Your task to perform on an android device: turn on improve location accuracy Image 0: 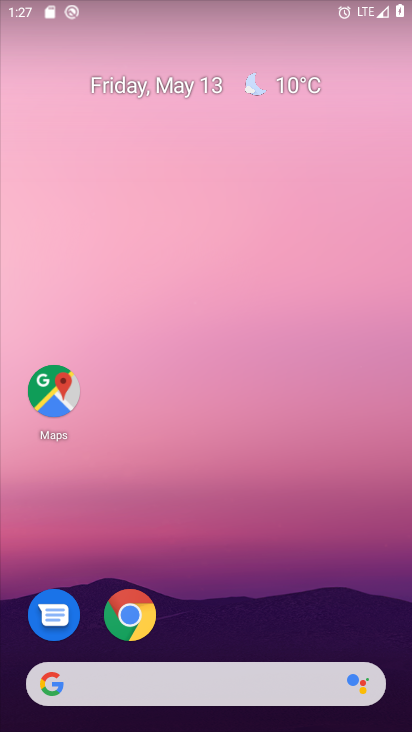
Step 0: drag from (240, 620) to (214, 51)
Your task to perform on an android device: turn on improve location accuracy Image 1: 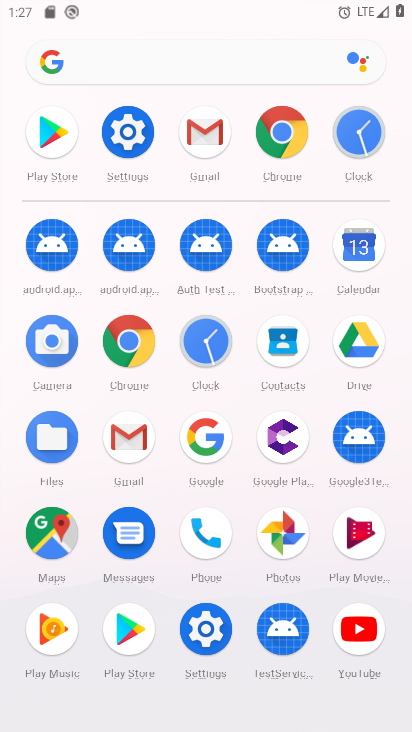
Step 1: click (133, 118)
Your task to perform on an android device: turn on improve location accuracy Image 2: 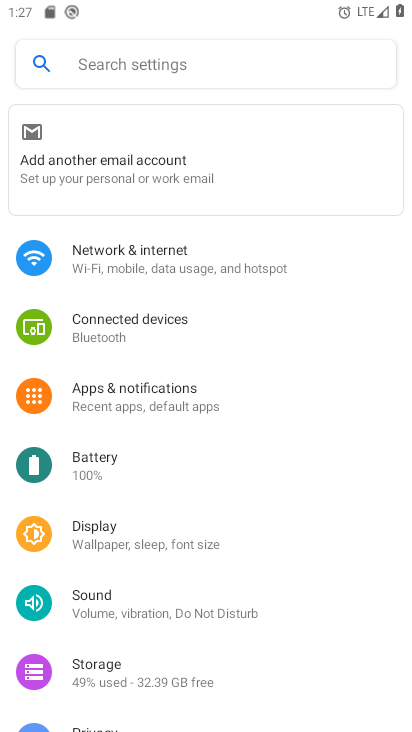
Step 2: drag from (229, 599) to (251, 72)
Your task to perform on an android device: turn on improve location accuracy Image 3: 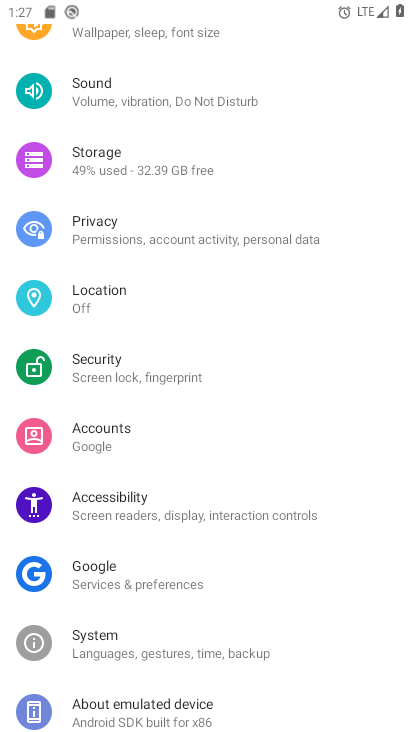
Step 3: click (109, 298)
Your task to perform on an android device: turn on improve location accuracy Image 4: 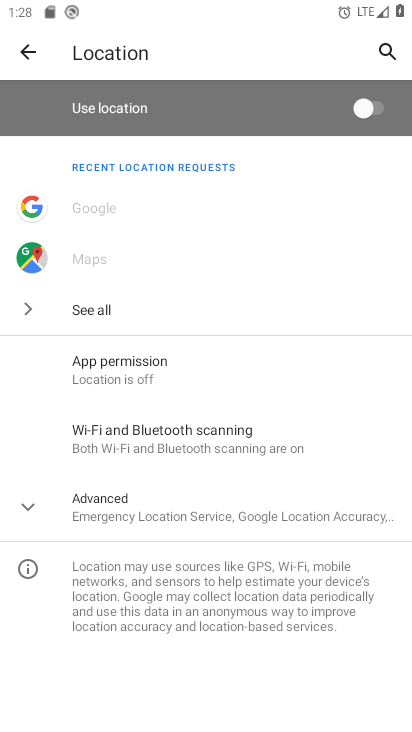
Step 4: click (26, 500)
Your task to perform on an android device: turn on improve location accuracy Image 5: 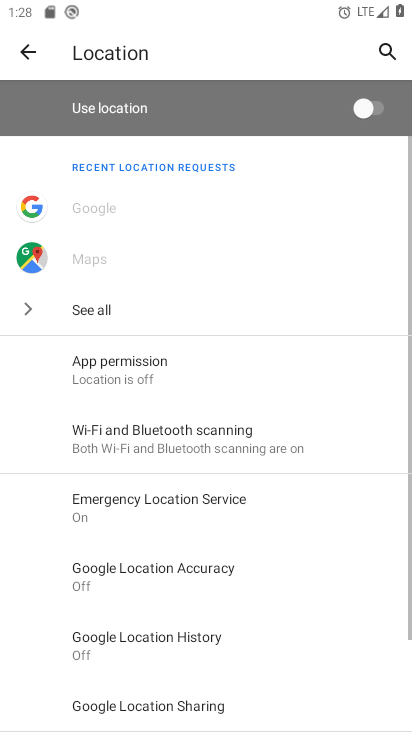
Step 5: drag from (240, 416) to (273, 149)
Your task to perform on an android device: turn on improve location accuracy Image 6: 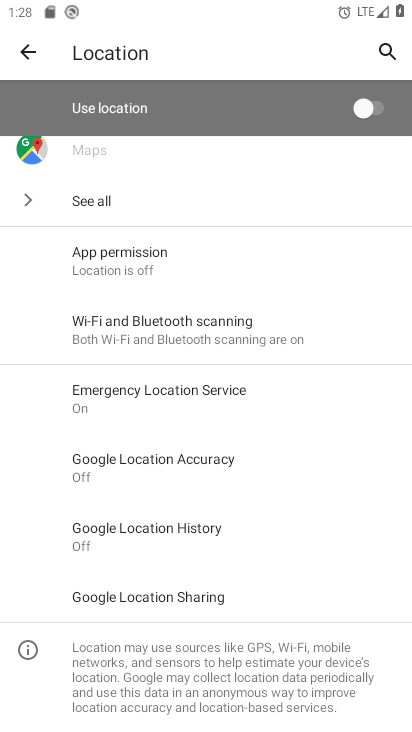
Step 6: click (175, 460)
Your task to perform on an android device: turn on improve location accuracy Image 7: 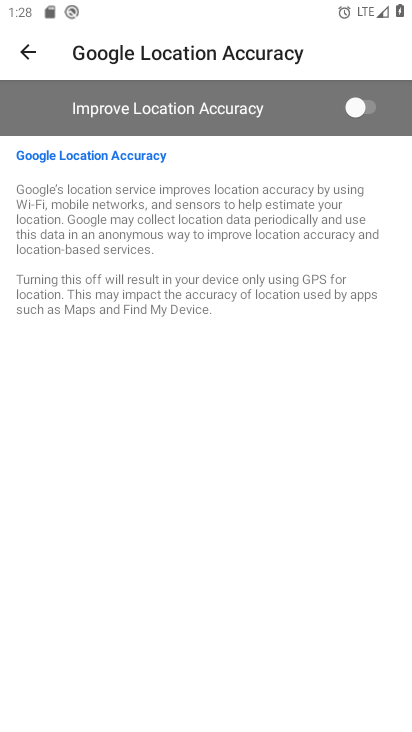
Step 7: click (372, 106)
Your task to perform on an android device: turn on improve location accuracy Image 8: 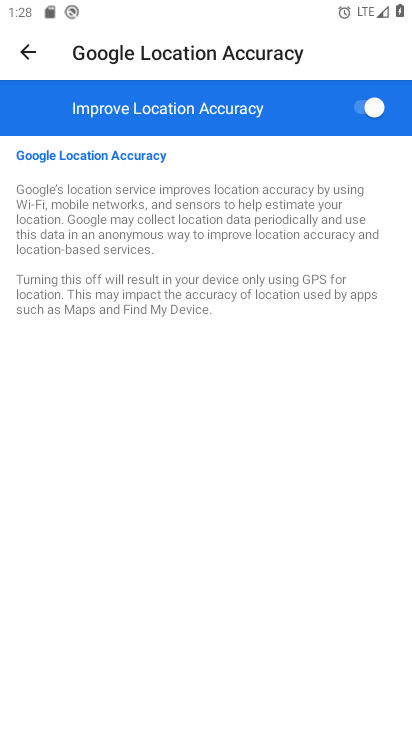
Step 8: task complete